Your task to perform on an android device: toggle airplane mode Image 0: 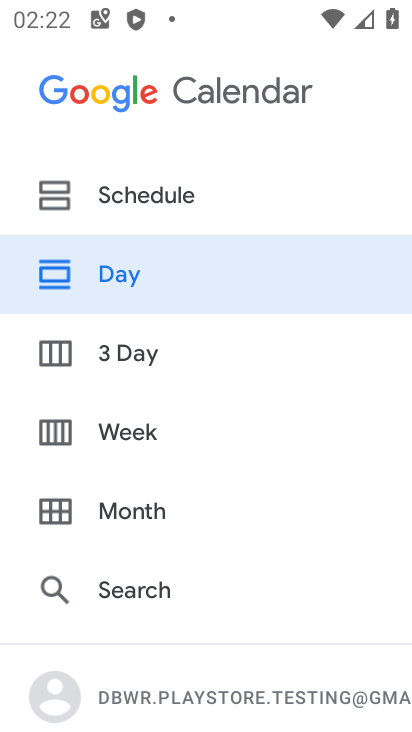
Step 0: press home button
Your task to perform on an android device: toggle airplane mode Image 1: 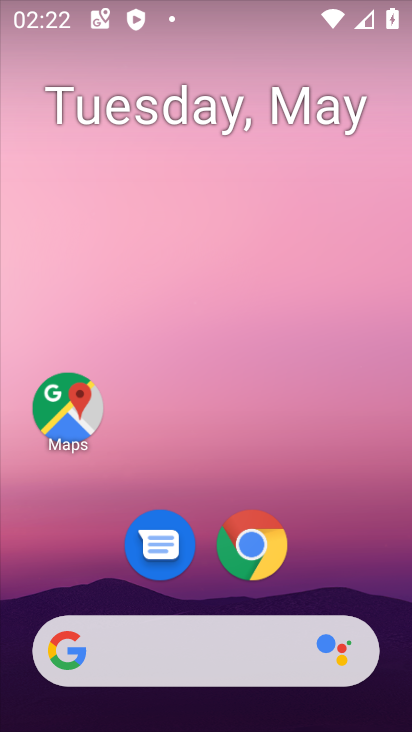
Step 1: drag from (386, 587) to (320, 95)
Your task to perform on an android device: toggle airplane mode Image 2: 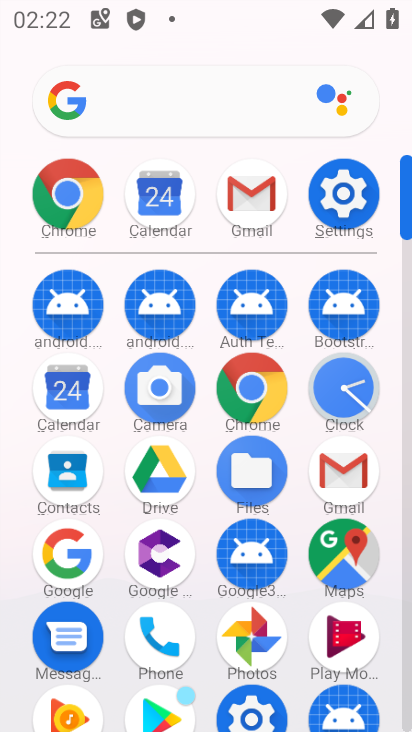
Step 2: click (252, 721)
Your task to perform on an android device: toggle airplane mode Image 3: 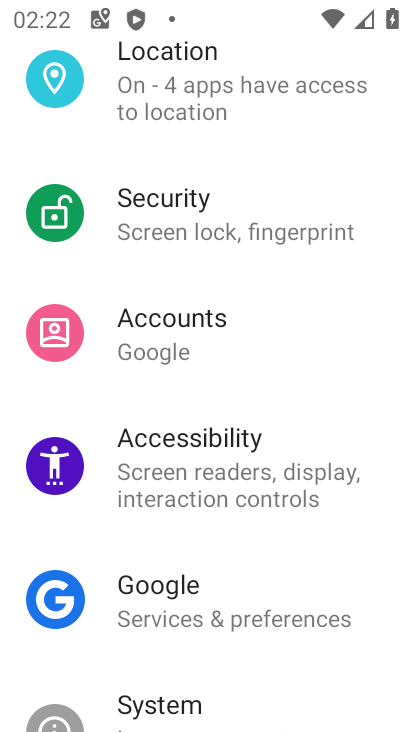
Step 3: drag from (348, 123) to (350, 543)
Your task to perform on an android device: toggle airplane mode Image 4: 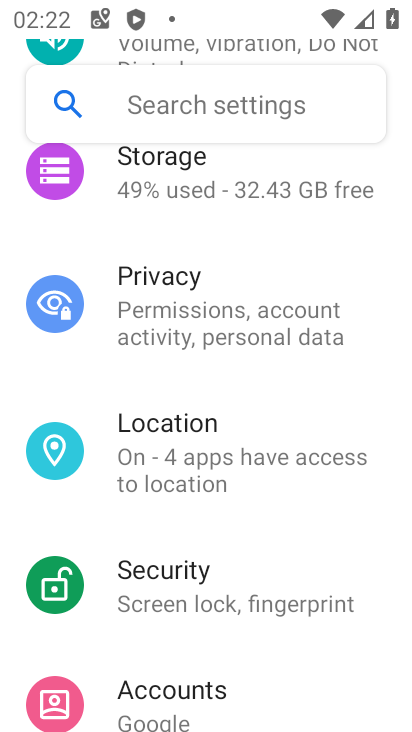
Step 4: drag from (382, 225) to (350, 546)
Your task to perform on an android device: toggle airplane mode Image 5: 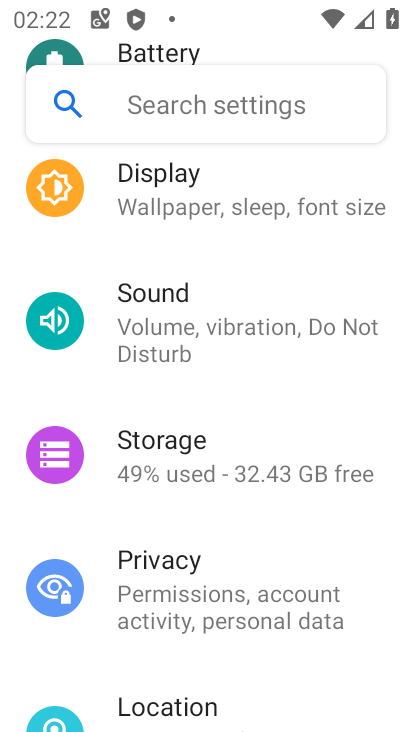
Step 5: drag from (368, 179) to (327, 598)
Your task to perform on an android device: toggle airplane mode Image 6: 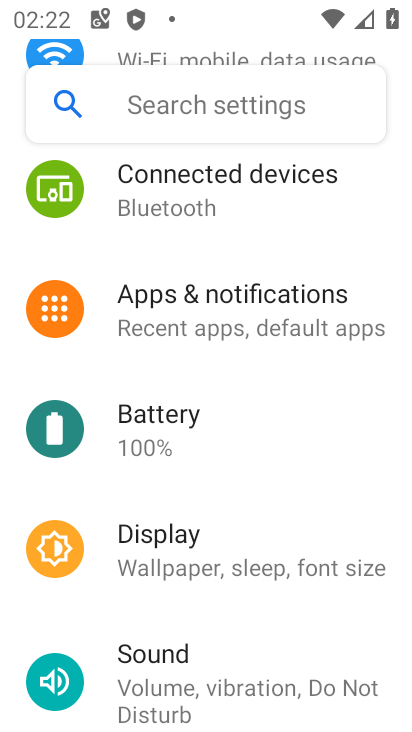
Step 6: drag from (362, 267) to (332, 593)
Your task to perform on an android device: toggle airplane mode Image 7: 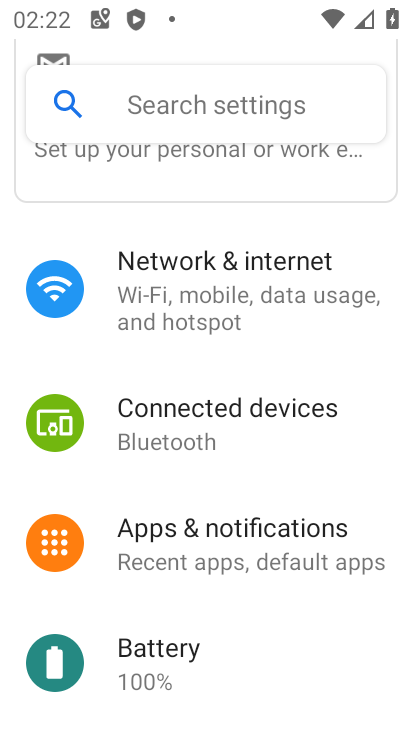
Step 7: click (167, 280)
Your task to perform on an android device: toggle airplane mode Image 8: 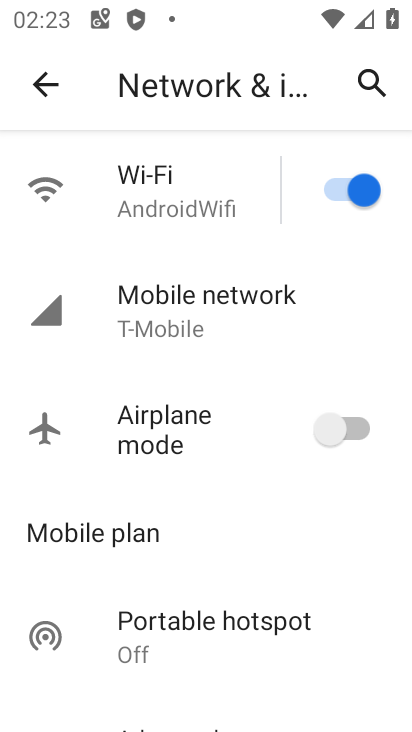
Step 8: click (359, 424)
Your task to perform on an android device: toggle airplane mode Image 9: 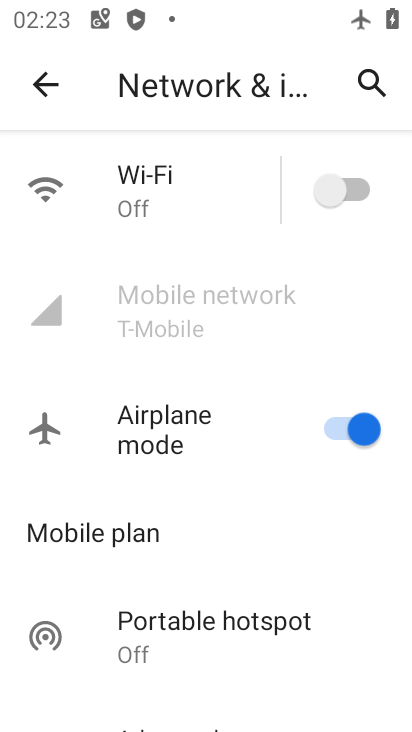
Step 9: task complete